Your task to perform on an android device: Go to settings Image 0: 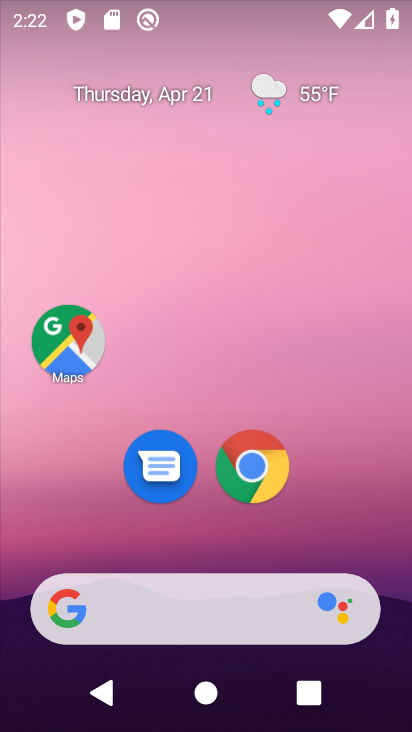
Step 0: drag from (342, 556) to (313, 121)
Your task to perform on an android device: Go to settings Image 1: 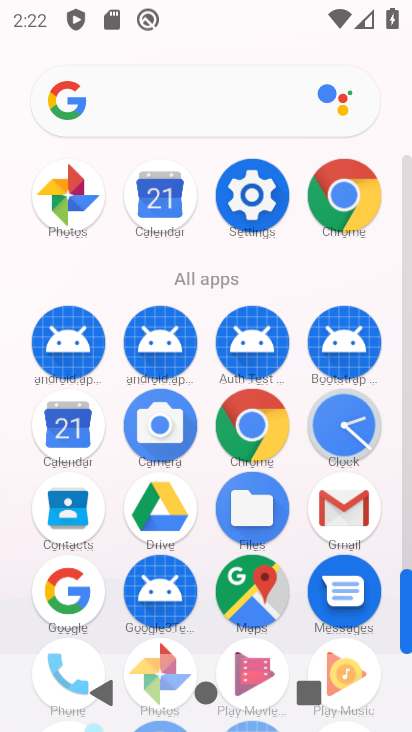
Step 1: click (254, 193)
Your task to perform on an android device: Go to settings Image 2: 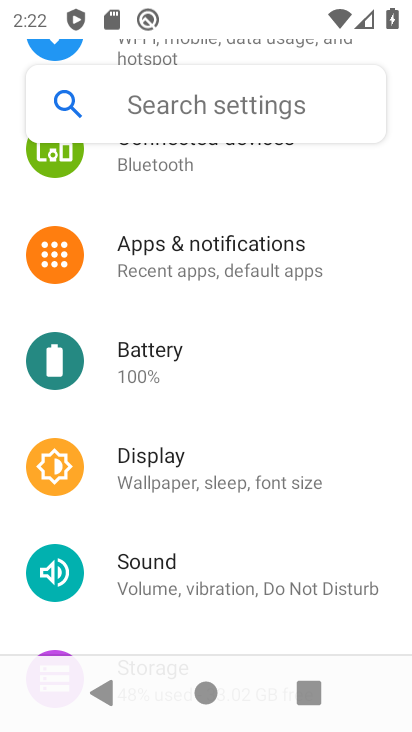
Step 2: task complete